Your task to perform on an android device: What's on my calendar tomorrow? Image 0: 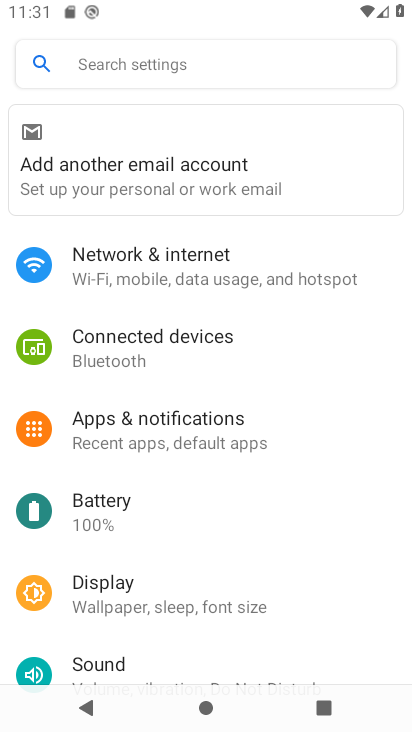
Step 0: press home button
Your task to perform on an android device: What's on my calendar tomorrow? Image 1: 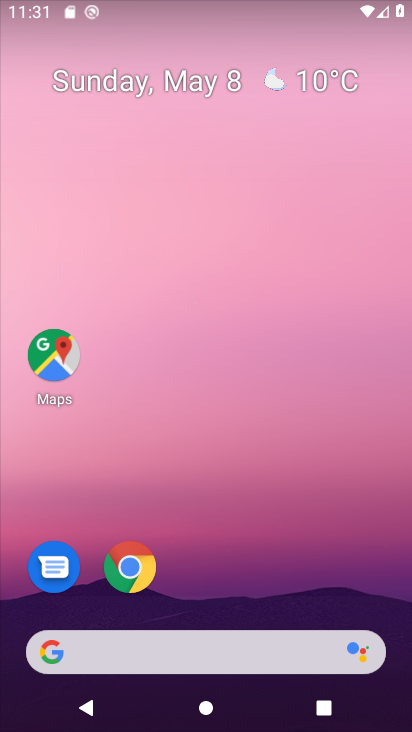
Step 1: drag from (322, 453) to (343, 105)
Your task to perform on an android device: What's on my calendar tomorrow? Image 2: 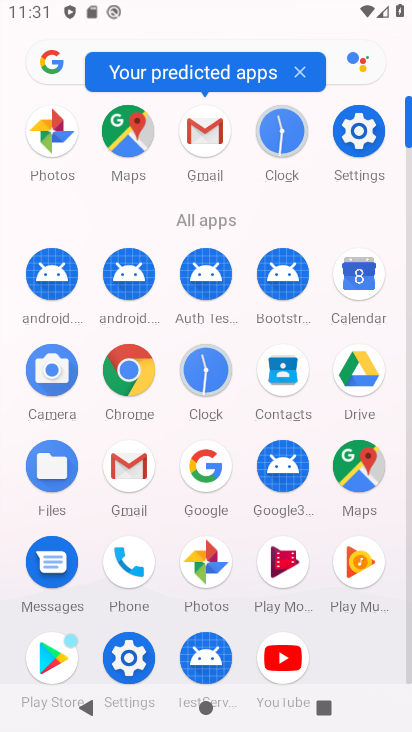
Step 2: click (365, 289)
Your task to perform on an android device: What's on my calendar tomorrow? Image 3: 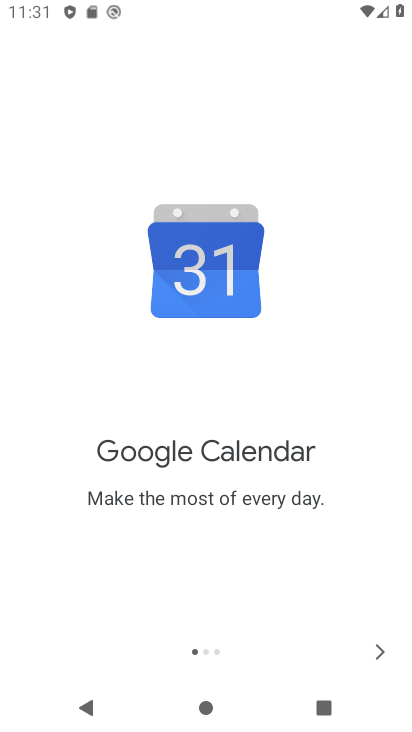
Step 3: click (361, 655)
Your task to perform on an android device: What's on my calendar tomorrow? Image 4: 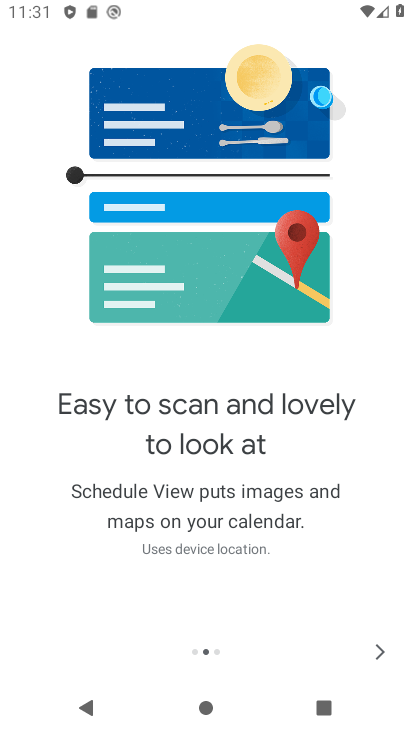
Step 4: click (361, 655)
Your task to perform on an android device: What's on my calendar tomorrow? Image 5: 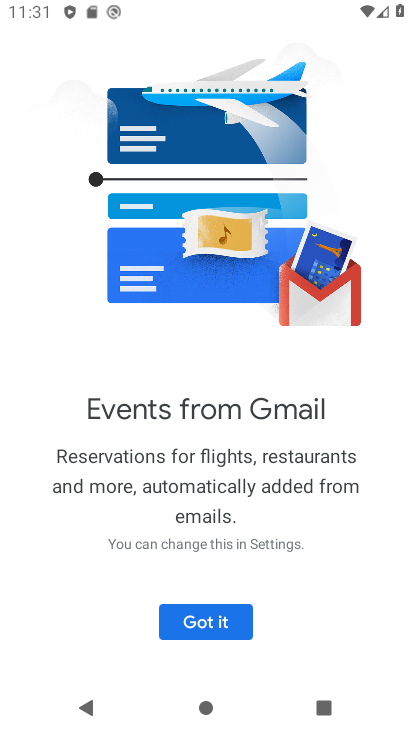
Step 5: click (235, 632)
Your task to perform on an android device: What's on my calendar tomorrow? Image 6: 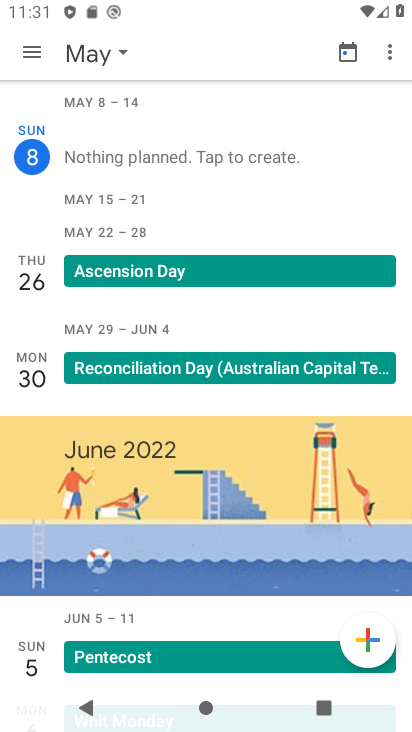
Step 6: click (100, 53)
Your task to perform on an android device: What's on my calendar tomorrow? Image 7: 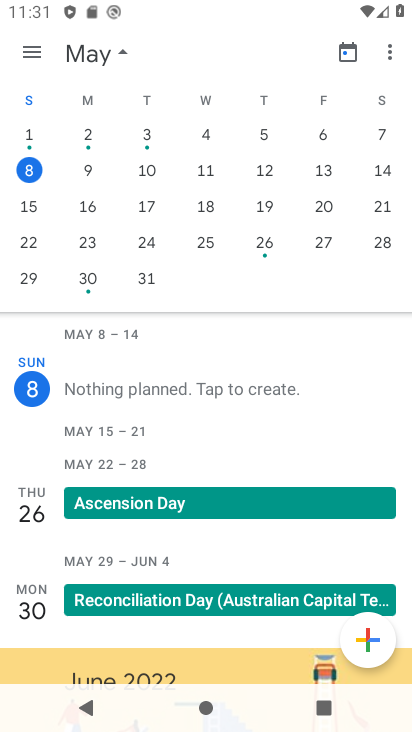
Step 7: click (84, 173)
Your task to perform on an android device: What's on my calendar tomorrow? Image 8: 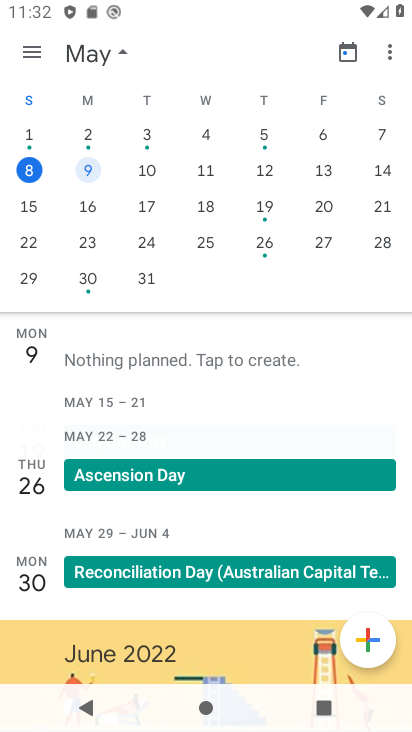
Step 8: click (89, 170)
Your task to perform on an android device: What's on my calendar tomorrow? Image 9: 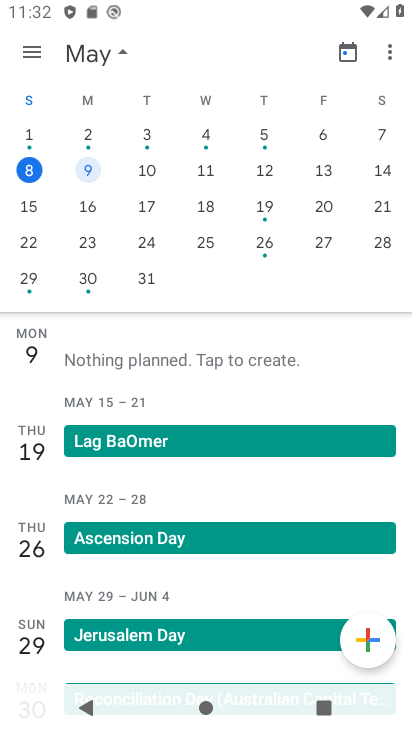
Step 9: task complete